Your task to perform on an android device: Search for sushi restaurants on Maps Image 0: 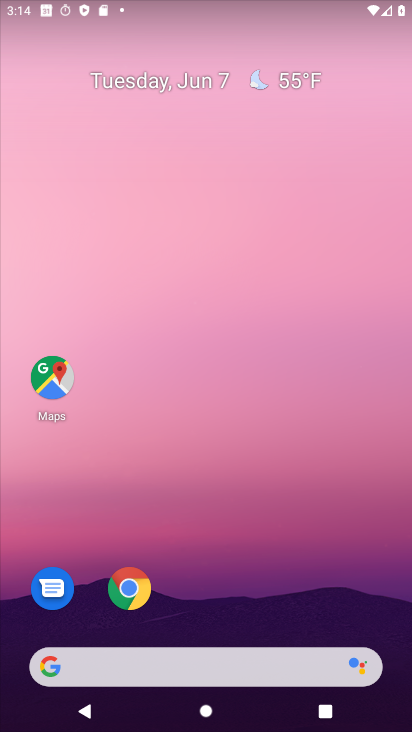
Step 0: press home button
Your task to perform on an android device: Search for sushi restaurants on Maps Image 1: 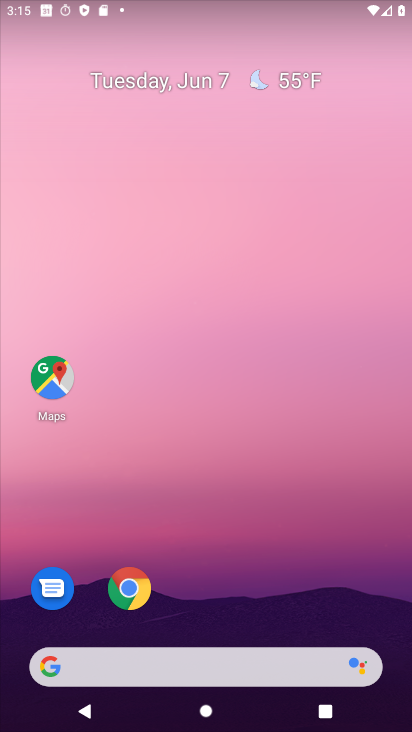
Step 1: click (43, 388)
Your task to perform on an android device: Search for sushi restaurants on Maps Image 2: 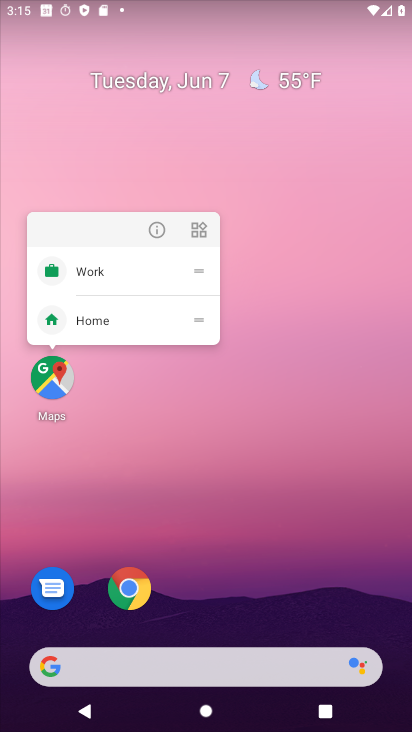
Step 2: click (40, 384)
Your task to perform on an android device: Search for sushi restaurants on Maps Image 3: 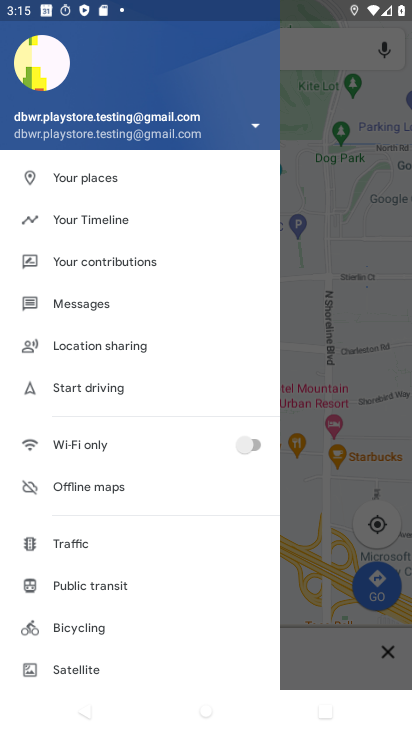
Step 3: click (335, 77)
Your task to perform on an android device: Search for sushi restaurants on Maps Image 4: 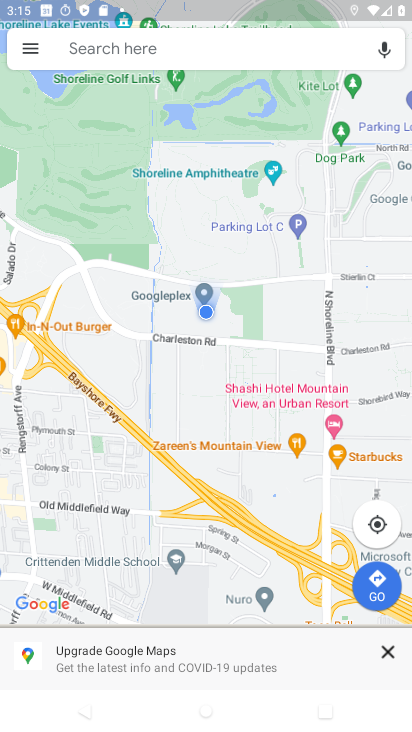
Step 4: click (189, 46)
Your task to perform on an android device: Search for sushi restaurants on Maps Image 5: 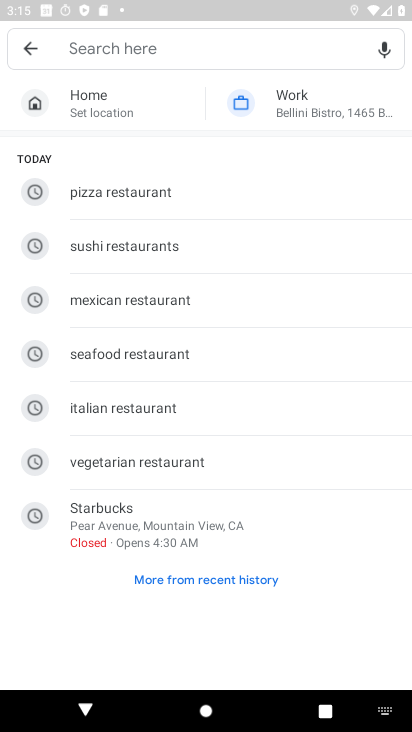
Step 5: click (127, 254)
Your task to perform on an android device: Search for sushi restaurants on Maps Image 6: 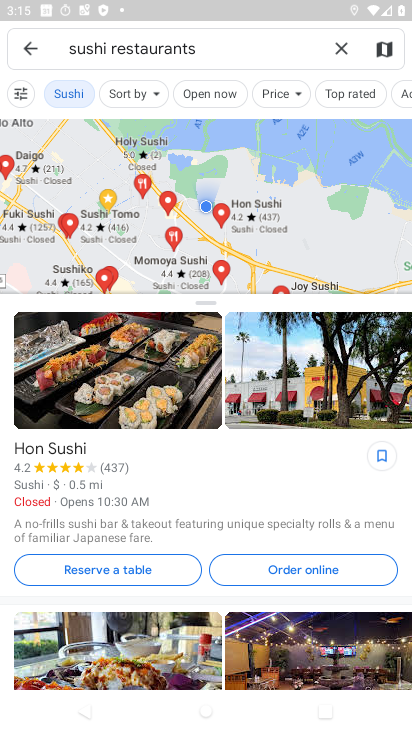
Step 6: task complete